Your task to perform on an android device: see creations saved in the google photos Image 0: 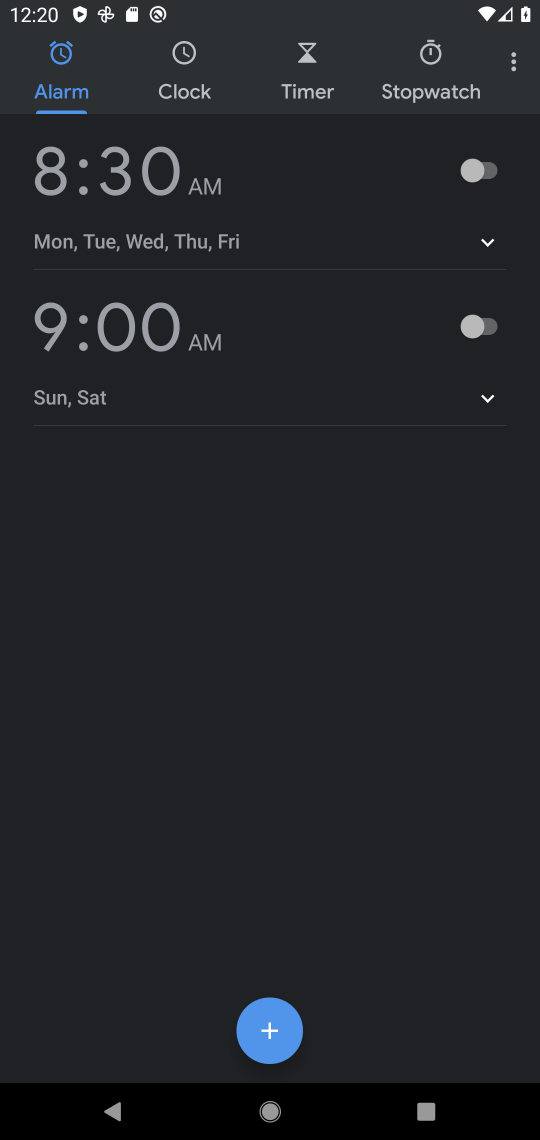
Step 0: press home button
Your task to perform on an android device: see creations saved in the google photos Image 1: 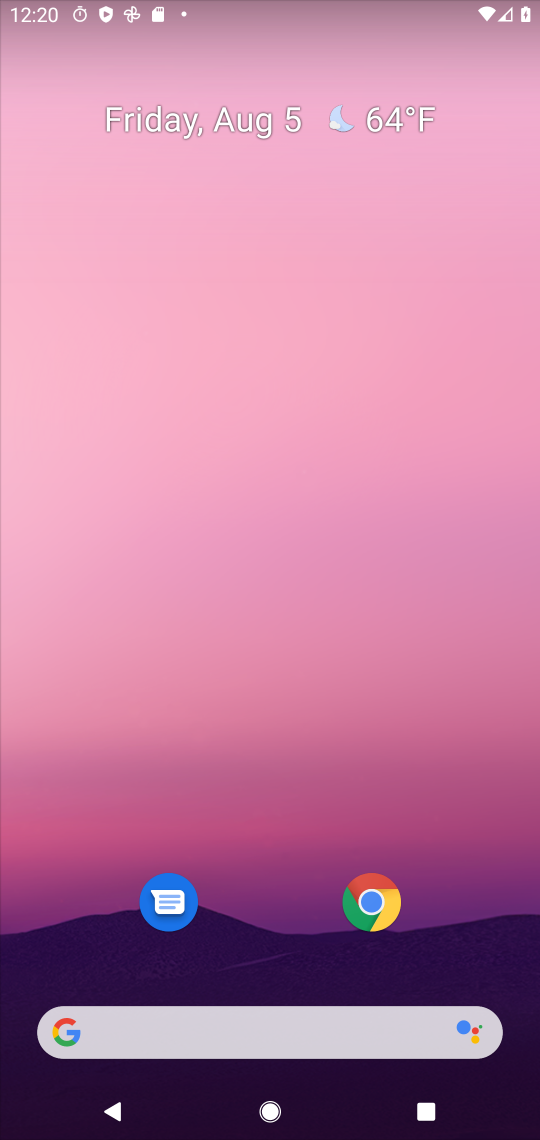
Step 1: drag from (336, 1063) to (340, 354)
Your task to perform on an android device: see creations saved in the google photos Image 2: 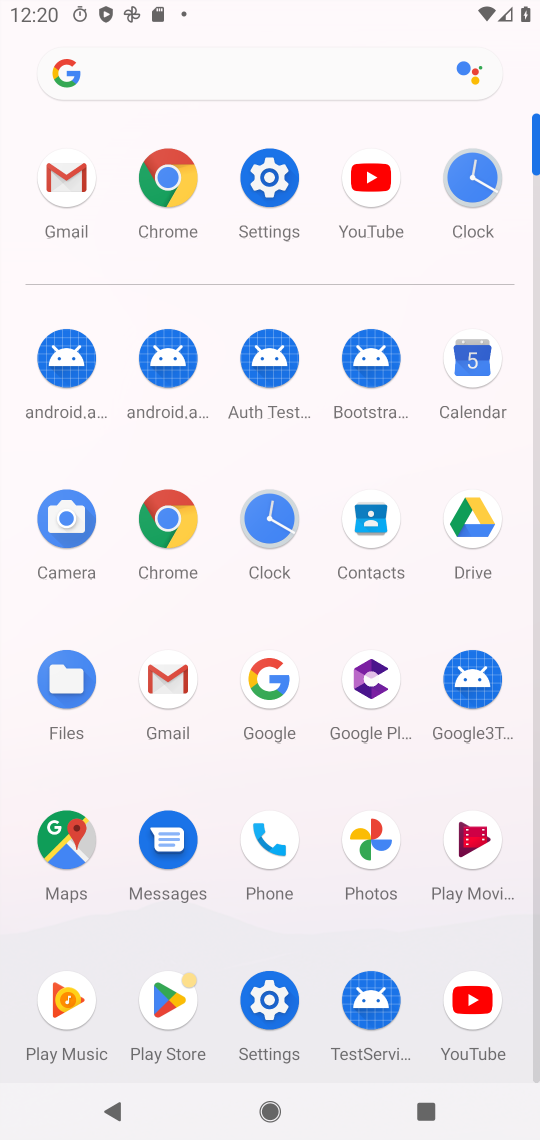
Step 2: click (363, 848)
Your task to perform on an android device: see creations saved in the google photos Image 3: 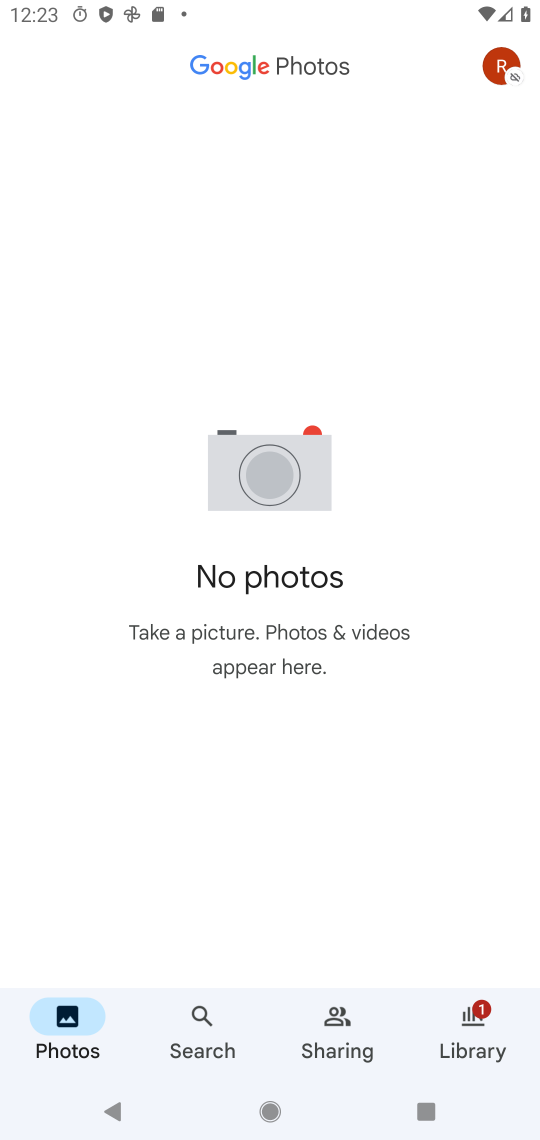
Step 3: task complete